Your task to perform on an android device: find photos in the google photos app Image 0: 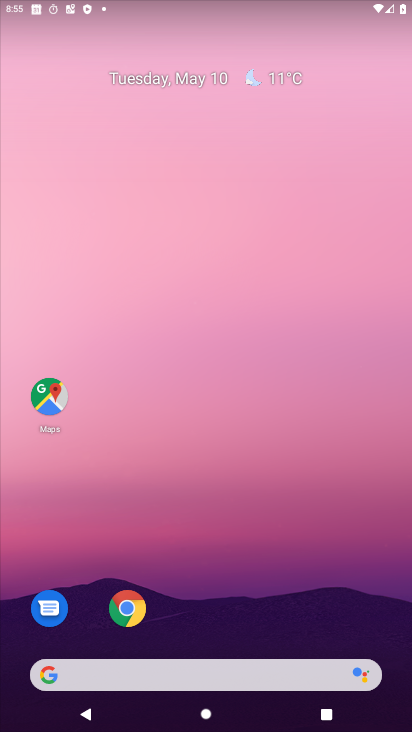
Step 0: drag from (212, 663) to (198, 239)
Your task to perform on an android device: find photos in the google photos app Image 1: 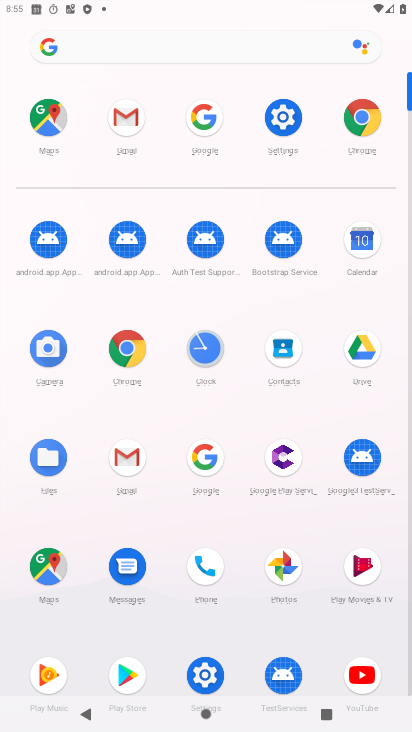
Step 1: click (283, 567)
Your task to perform on an android device: find photos in the google photos app Image 2: 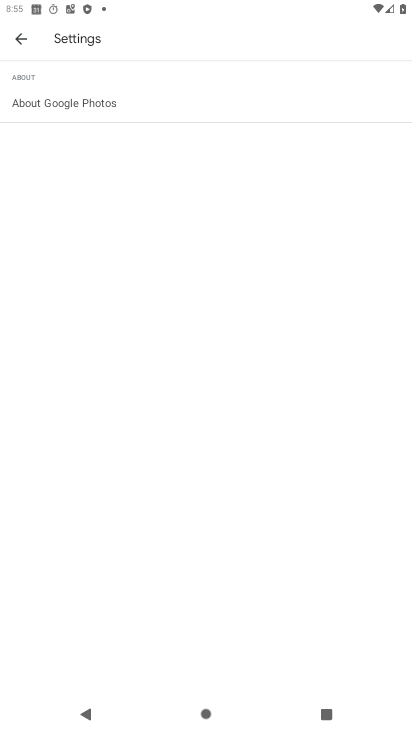
Step 2: press home button
Your task to perform on an android device: find photos in the google photos app Image 3: 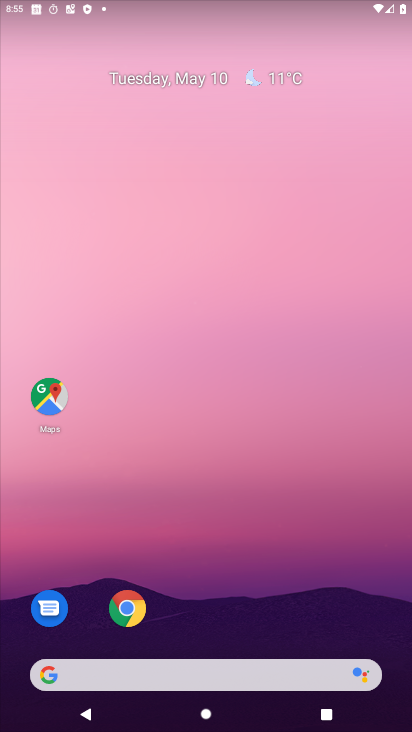
Step 3: drag from (256, 660) to (235, 205)
Your task to perform on an android device: find photos in the google photos app Image 4: 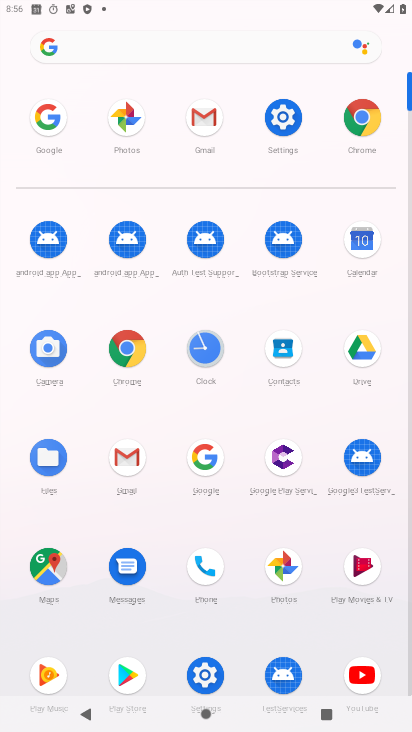
Step 4: click (285, 571)
Your task to perform on an android device: find photos in the google photos app Image 5: 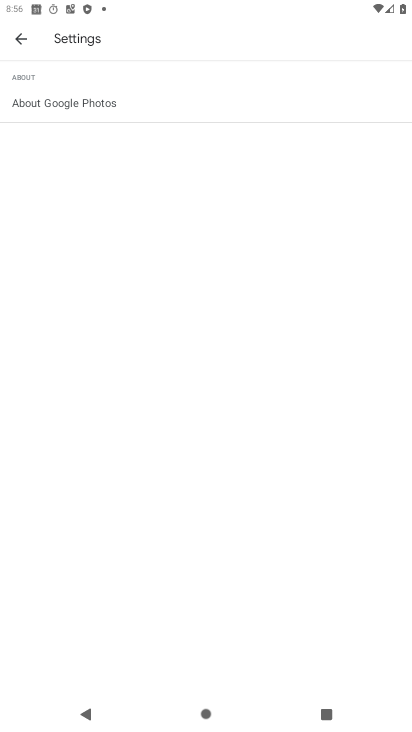
Step 5: click (25, 40)
Your task to perform on an android device: find photos in the google photos app Image 6: 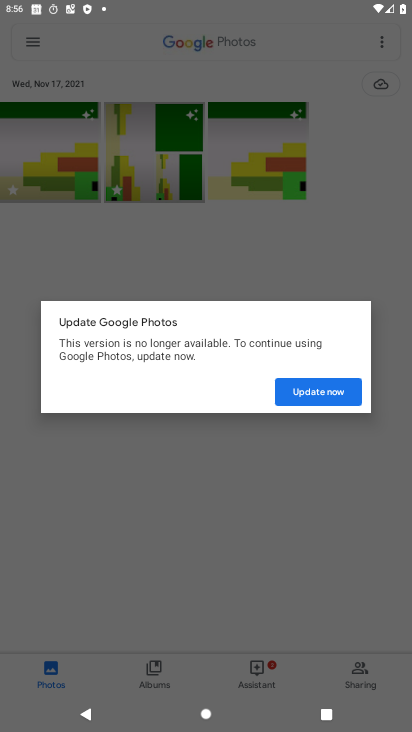
Step 6: click (308, 392)
Your task to perform on an android device: find photos in the google photos app Image 7: 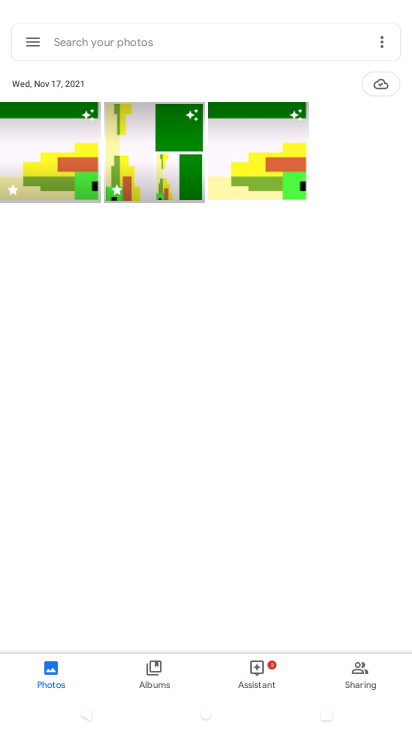
Step 7: click (266, 392)
Your task to perform on an android device: find photos in the google photos app Image 8: 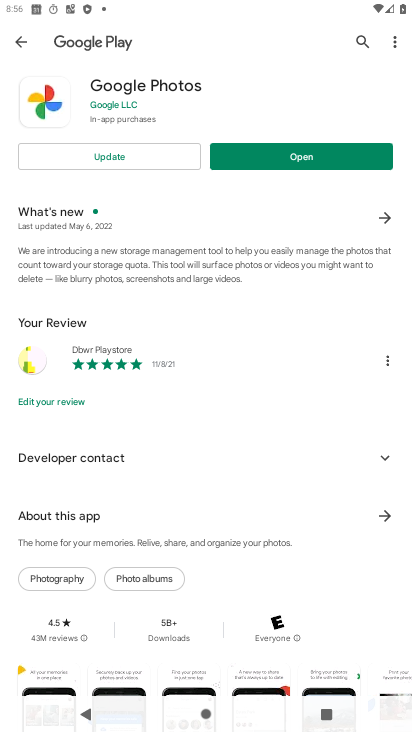
Step 8: click (140, 162)
Your task to perform on an android device: find photos in the google photos app Image 9: 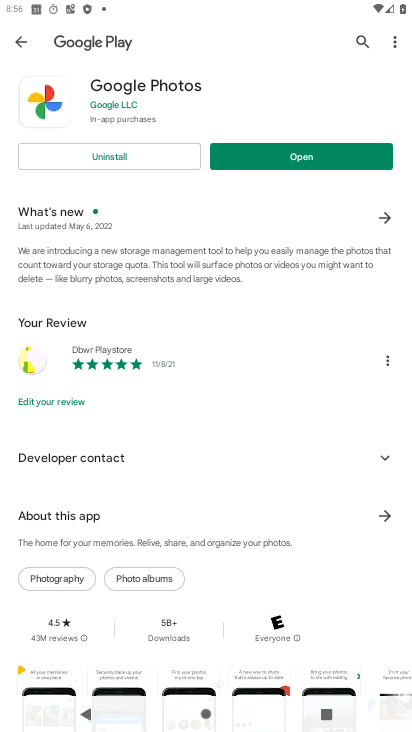
Step 9: click (291, 166)
Your task to perform on an android device: find photos in the google photos app Image 10: 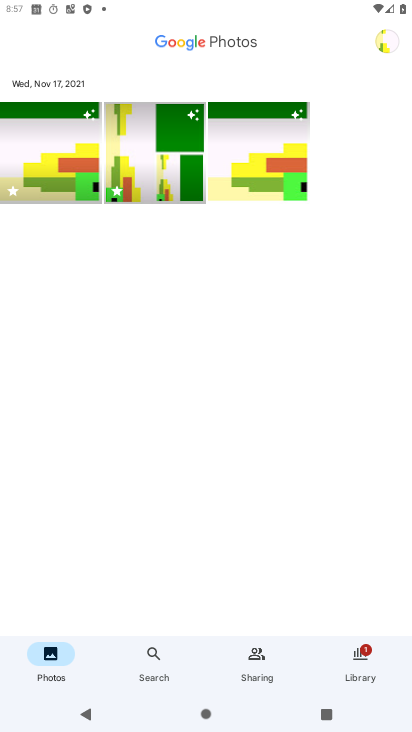
Step 10: task complete